Your task to perform on an android device: search for starred emails in the gmail app Image 0: 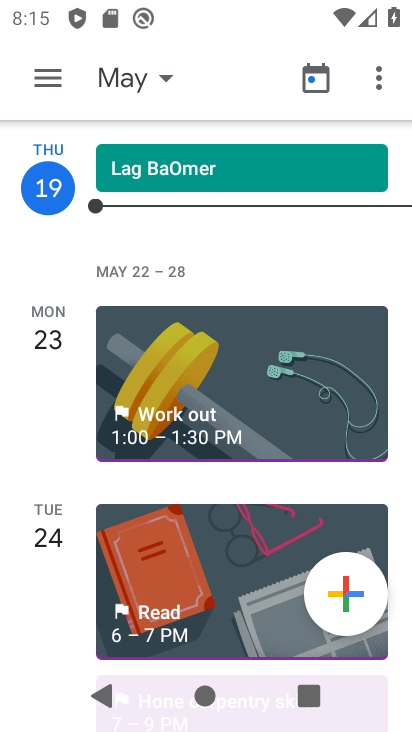
Step 0: press home button
Your task to perform on an android device: search for starred emails in the gmail app Image 1: 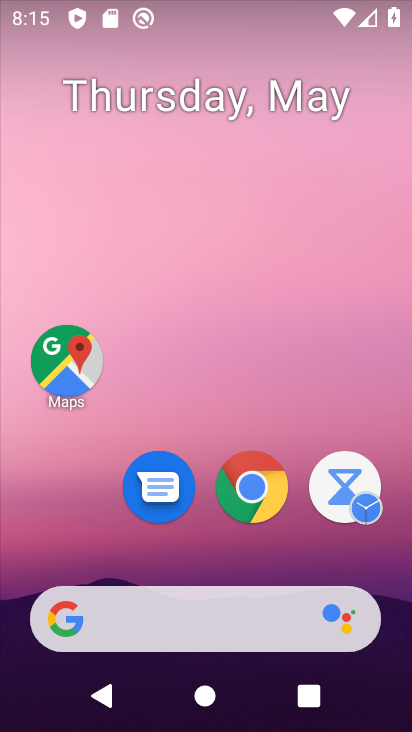
Step 1: drag from (373, 566) to (362, 153)
Your task to perform on an android device: search for starred emails in the gmail app Image 2: 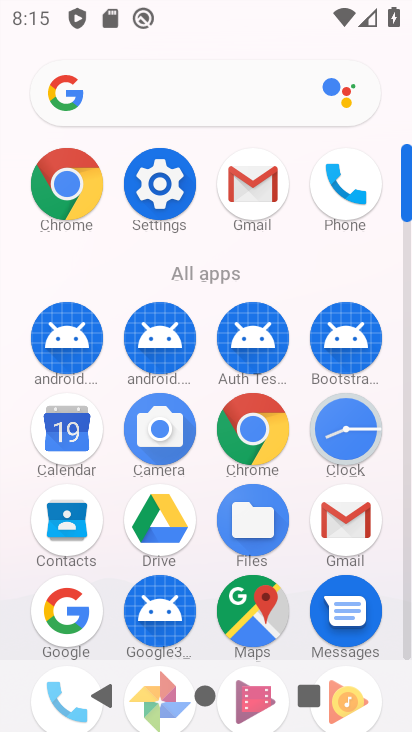
Step 2: click (353, 522)
Your task to perform on an android device: search for starred emails in the gmail app Image 3: 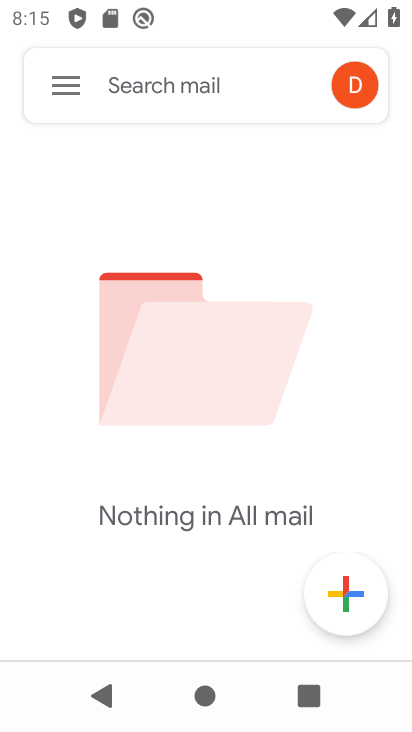
Step 3: click (88, 90)
Your task to perform on an android device: search for starred emails in the gmail app Image 4: 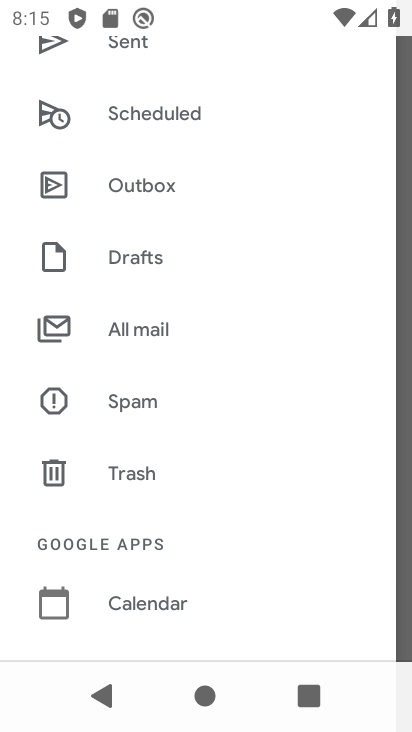
Step 4: drag from (282, 504) to (275, 358)
Your task to perform on an android device: search for starred emails in the gmail app Image 5: 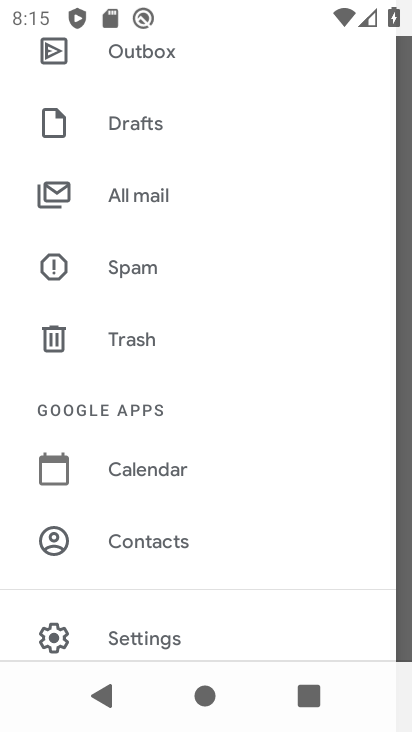
Step 5: drag from (278, 529) to (291, 370)
Your task to perform on an android device: search for starred emails in the gmail app Image 6: 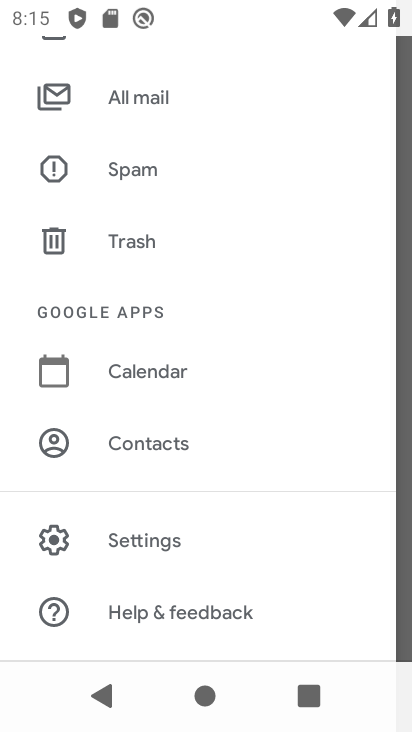
Step 6: drag from (301, 341) to (302, 440)
Your task to perform on an android device: search for starred emails in the gmail app Image 7: 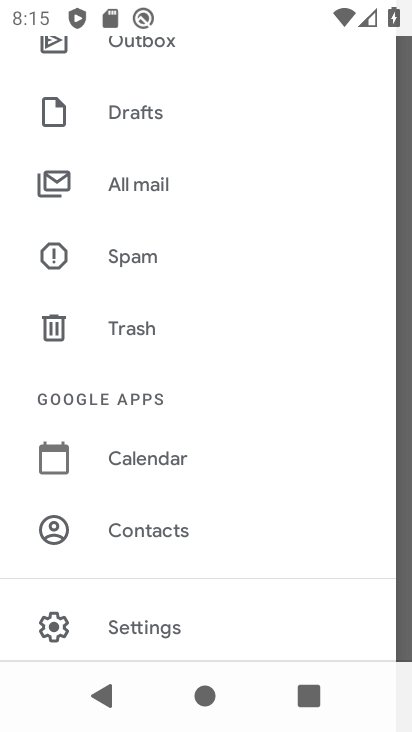
Step 7: drag from (293, 285) to (288, 405)
Your task to perform on an android device: search for starred emails in the gmail app Image 8: 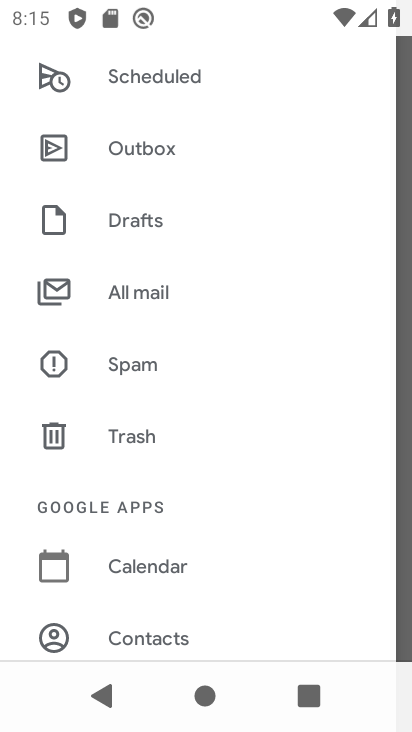
Step 8: drag from (301, 279) to (288, 375)
Your task to perform on an android device: search for starred emails in the gmail app Image 9: 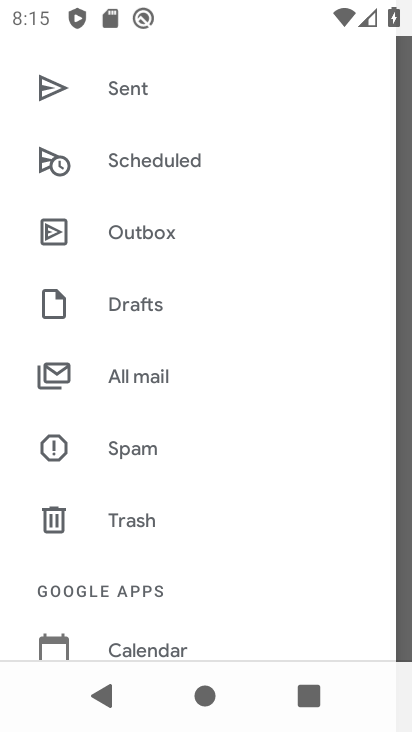
Step 9: drag from (293, 255) to (289, 359)
Your task to perform on an android device: search for starred emails in the gmail app Image 10: 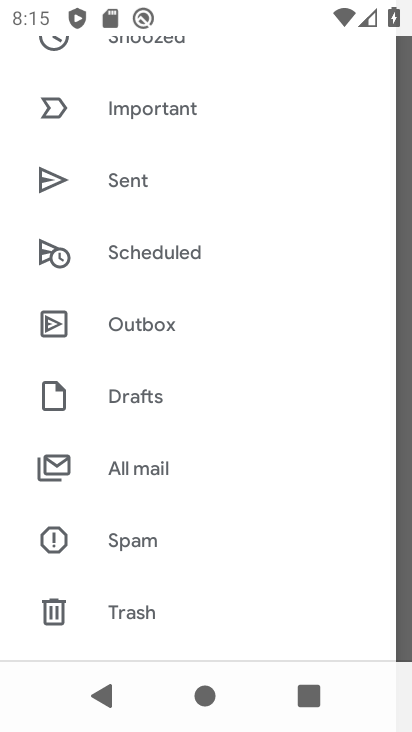
Step 10: drag from (299, 254) to (313, 403)
Your task to perform on an android device: search for starred emails in the gmail app Image 11: 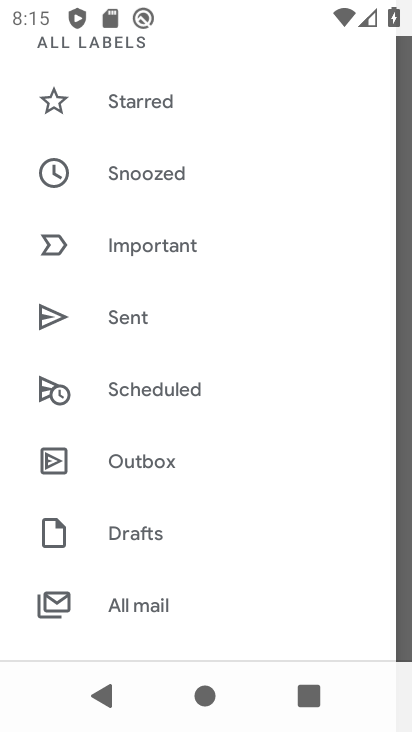
Step 11: drag from (317, 228) to (311, 317)
Your task to perform on an android device: search for starred emails in the gmail app Image 12: 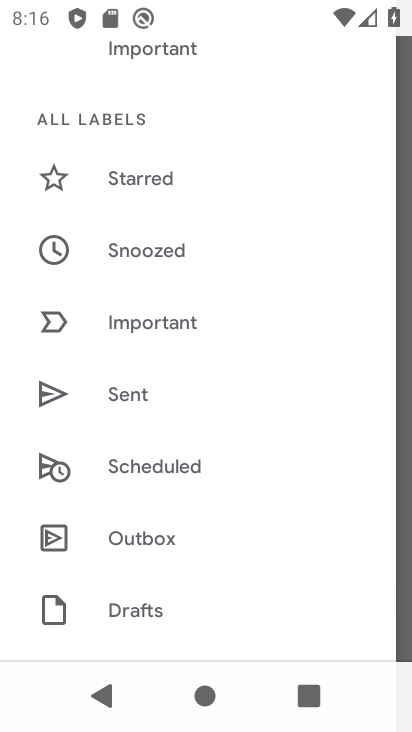
Step 12: drag from (300, 205) to (300, 352)
Your task to perform on an android device: search for starred emails in the gmail app Image 13: 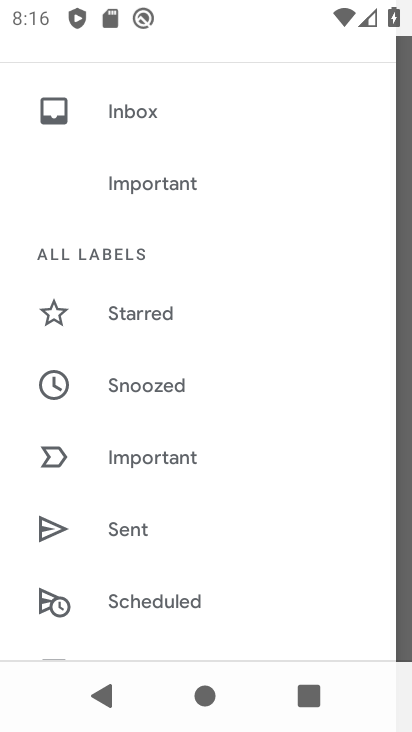
Step 13: drag from (303, 239) to (300, 361)
Your task to perform on an android device: search for starred emails in the gmail app Image 14: 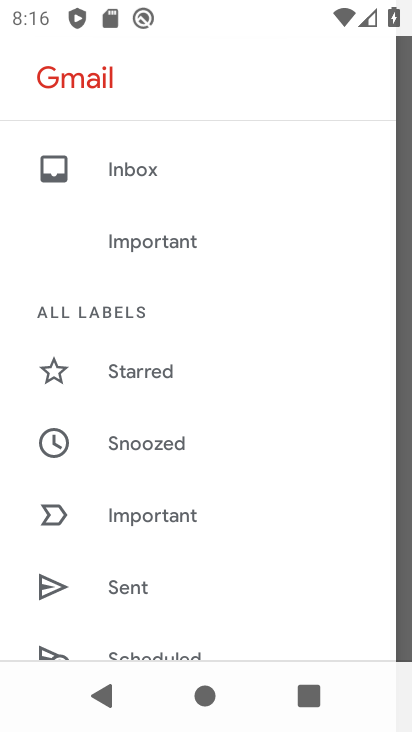
Step 14: click (208, 378)
Your task to perform on an android device: search for starred emails in the gmail app Image 15: 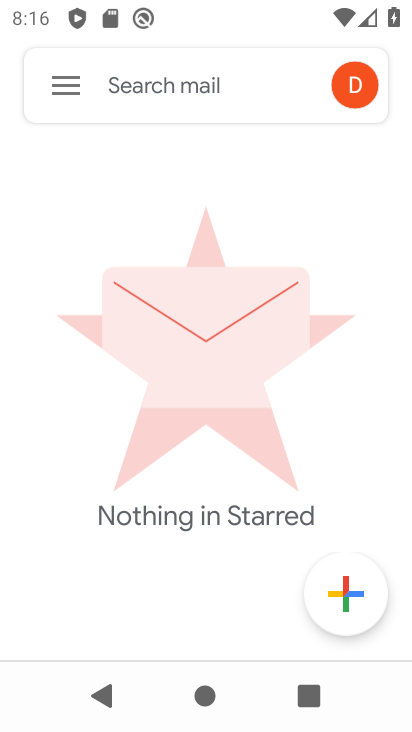
Step 15: task complete